Your task to perform on an android device: turn off translation in the chrome app Image 0: 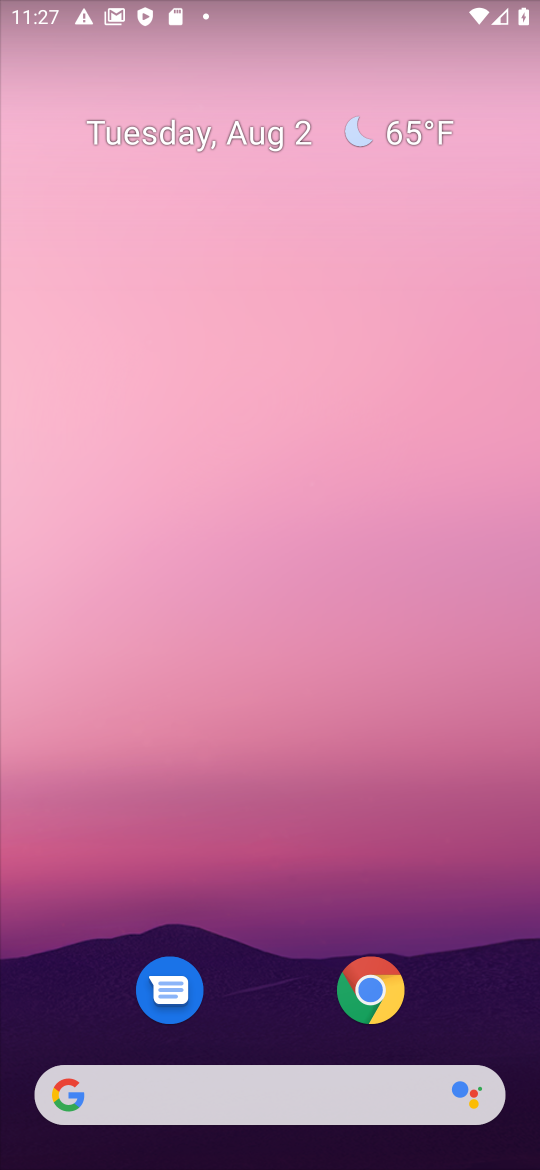
Step 0: press home button
Your task to perform on an android device: turn off translation in the chrome app Image 1: 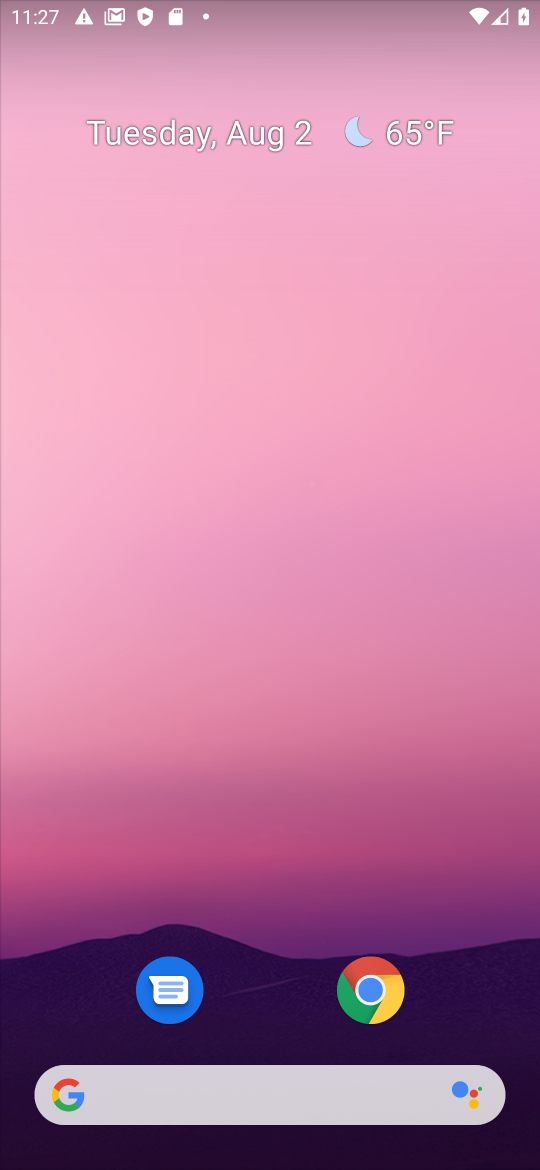
Step 1: click (413, 987)
Your task to perform on an android device: turn off translation in the chrome app Image 2: 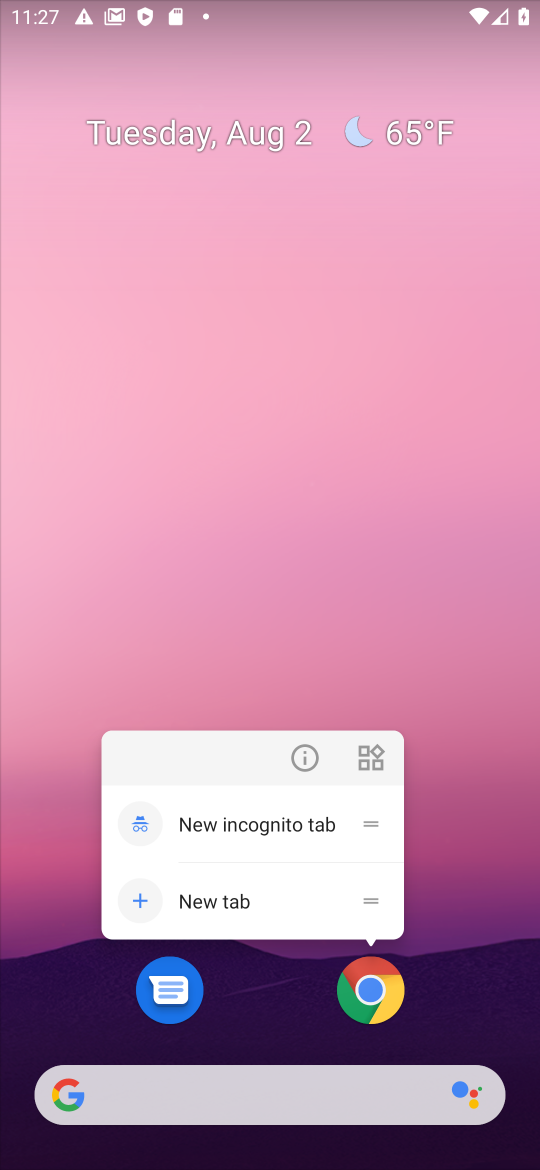
Step 2: click (375, 991)
Your task to perform on an android device: turn off translation in the chrome app Image 3: 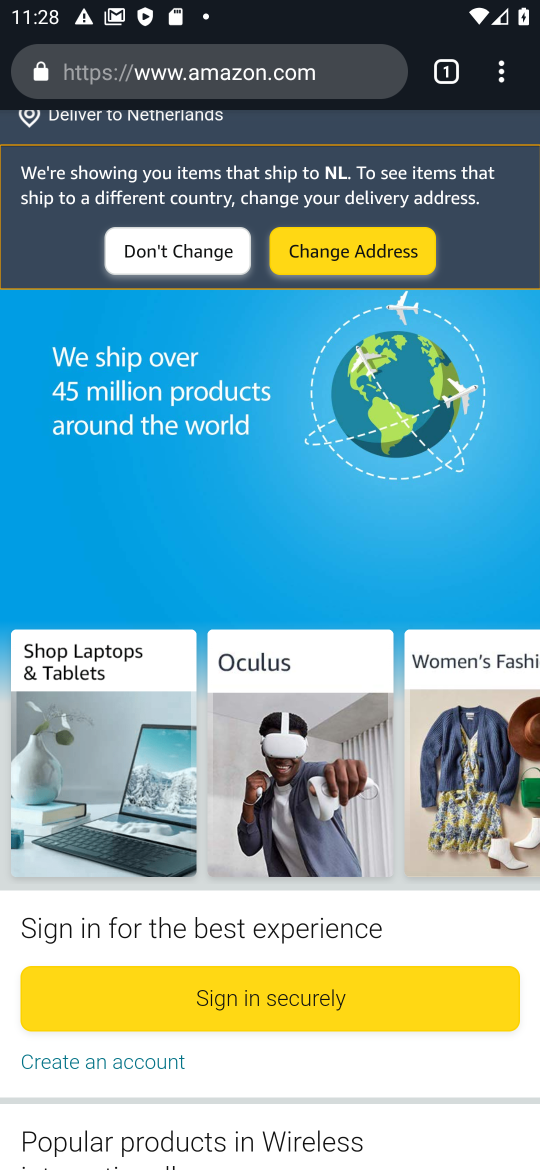
Step 3: click (511, 78)
Your task to perform on an android device: turn off translation in the chrome app Image 4: 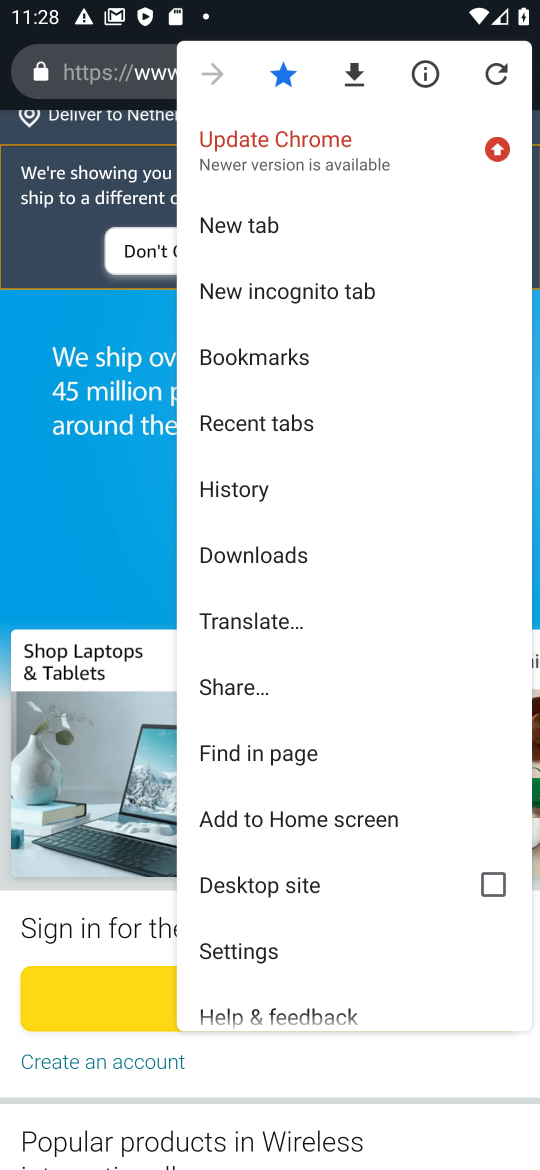
Step 4: click (232, 954)
Your task to perform on an android device: turn off translation in the chrome app Image 5: 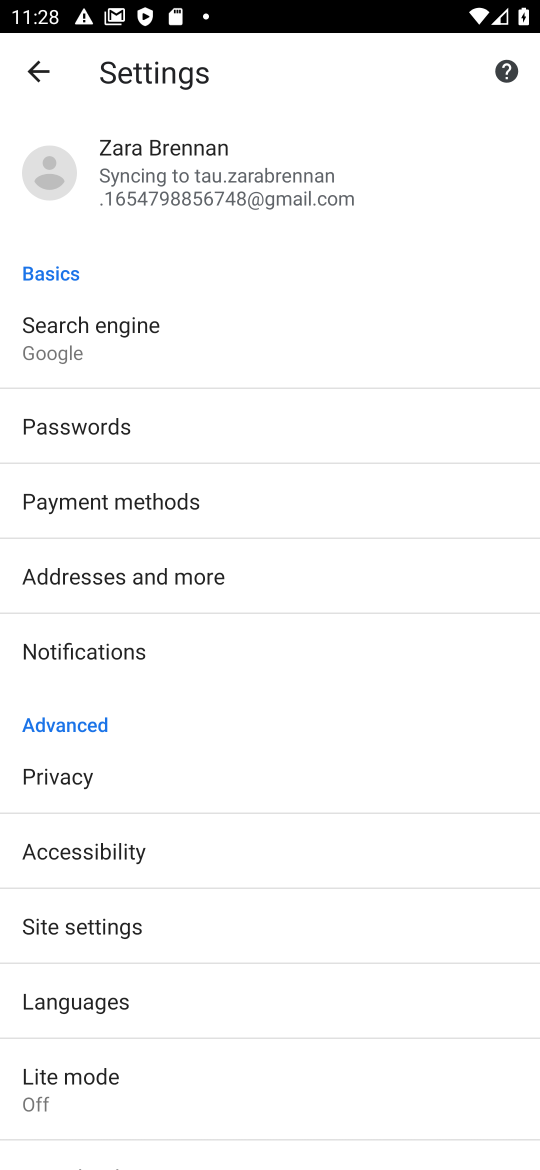
Step 5: drag from (101, 1099) to (101, 836)
Your task to perform on an android device: turn off translation in the chrome app Image 6: 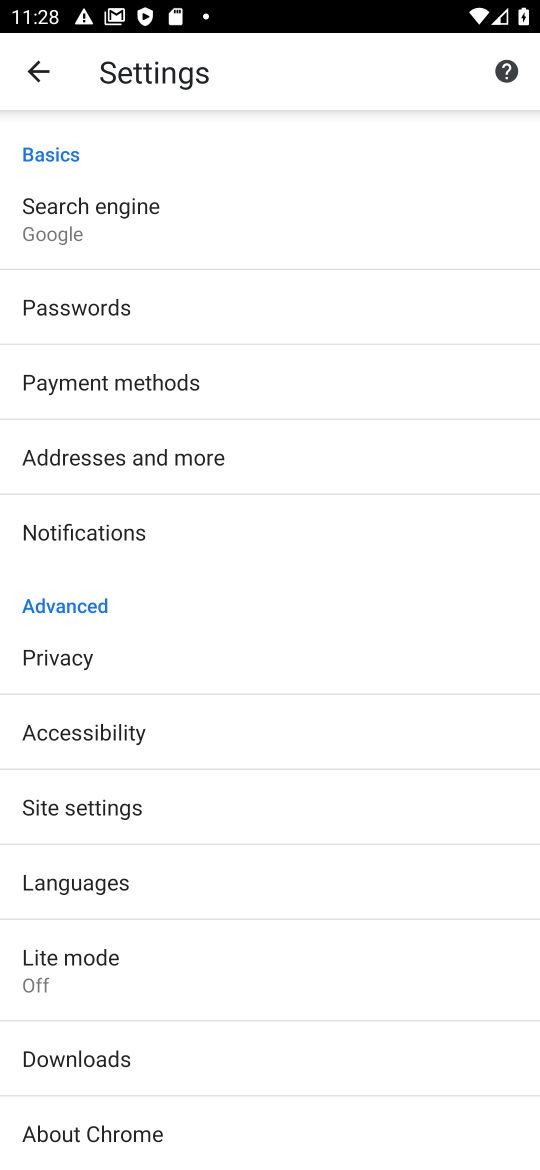
Step 6: click (90, 891)
Your task to perform on an android device: turn off translation in the chrome app Image 7: 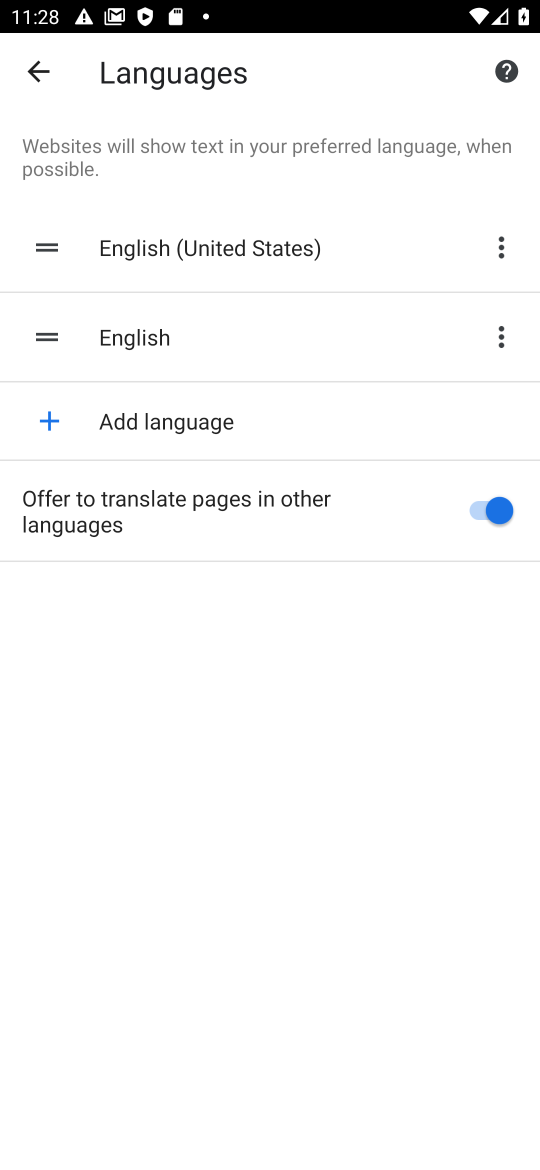
Step 7: click (446, 516)
Your task to perform on an android device: turn off translation in the chrome app Image 8: 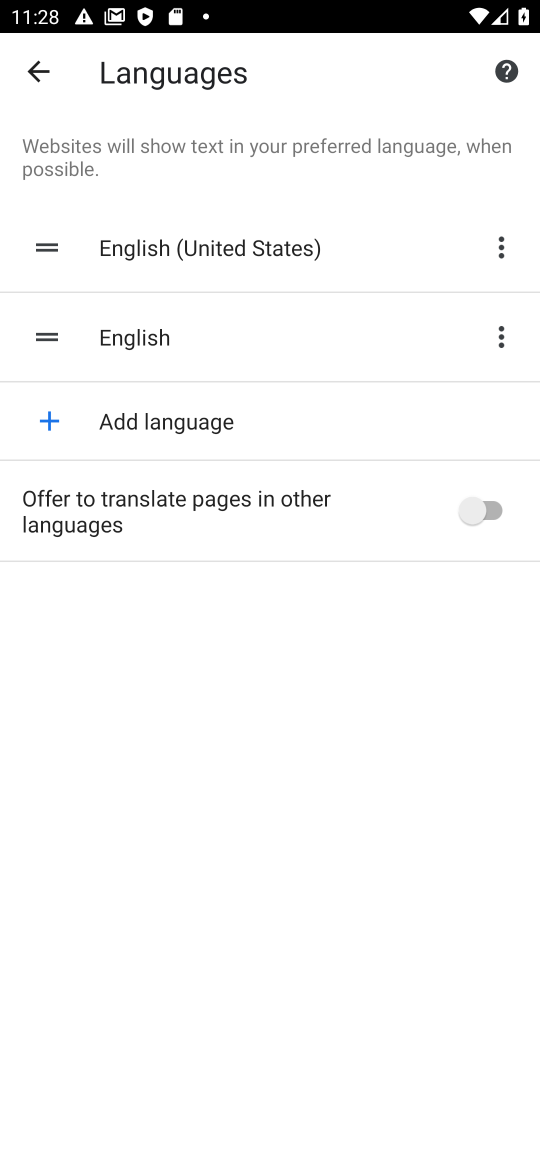
Step 8: task complete